Your task to perform on an android device: check battery use Image 0: 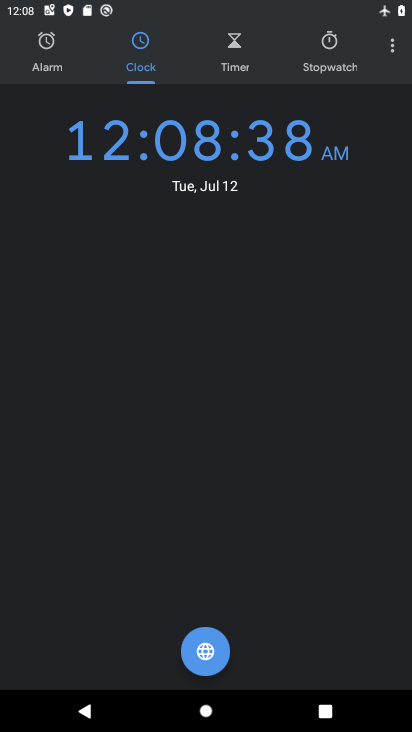
Step 0: press home button
Your task to perform on an android device: check battery use Image 1: 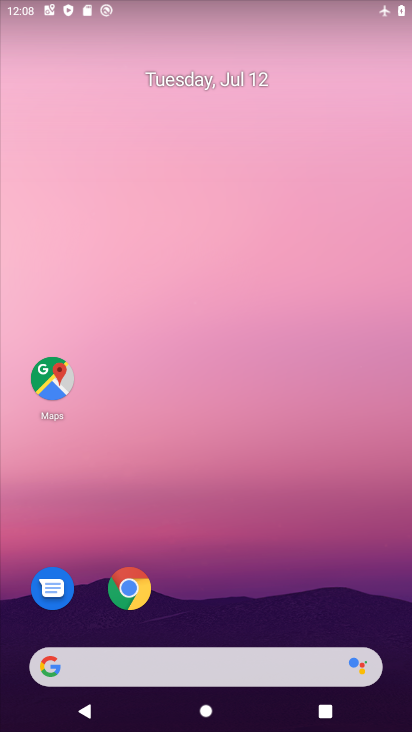
Step 1: drag from (249, 621) to (229, 122)
Your task to perform on an android device: check battery use Image 2: 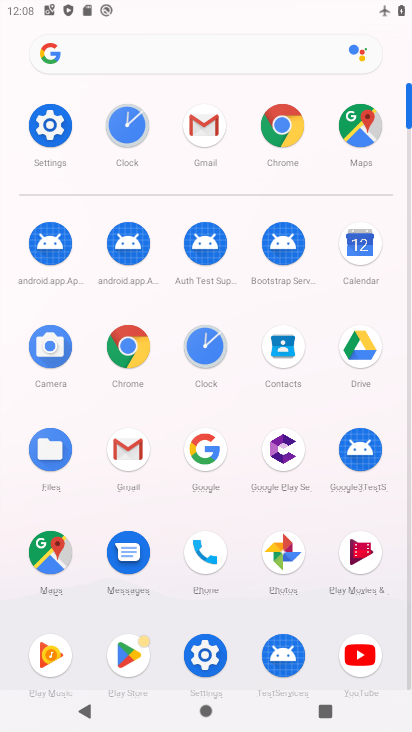
Step 2: click (49, 135)
Your task to perform on an android device: check battery use Image 3: 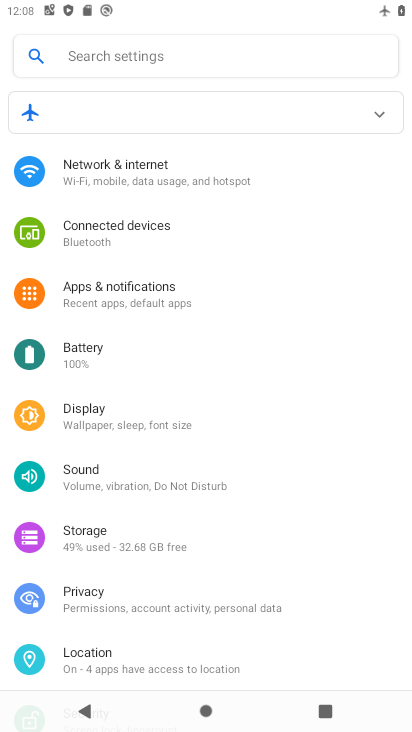
Step 3: click (93, 357)
Your task to perform on an android device: check battery use Image 4: 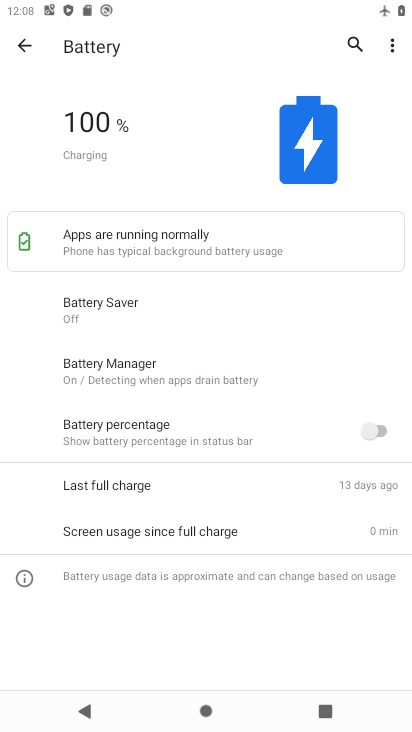
Step 4: click (395, 42)
Your task to perform on an android device: check battery use Image 5: 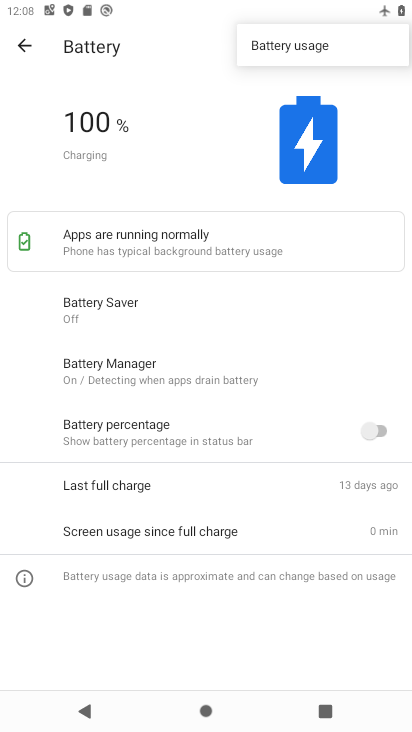
Step 5: click (358, 51)
Your task to perform on an android device: check battery use Image 6: 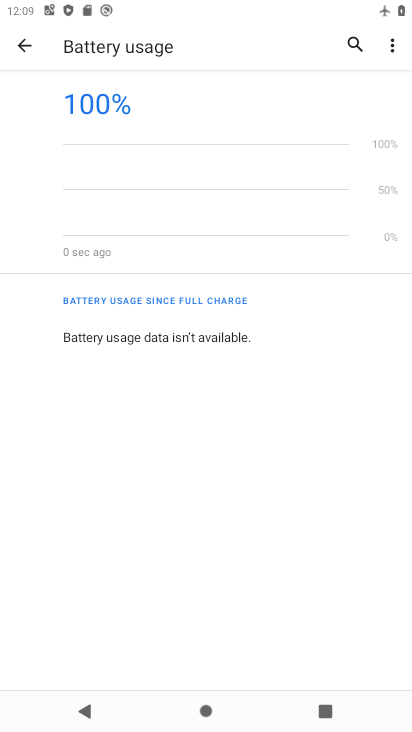
Step 6: task complete